Your task to perform on an android device: Open maps Image 0: 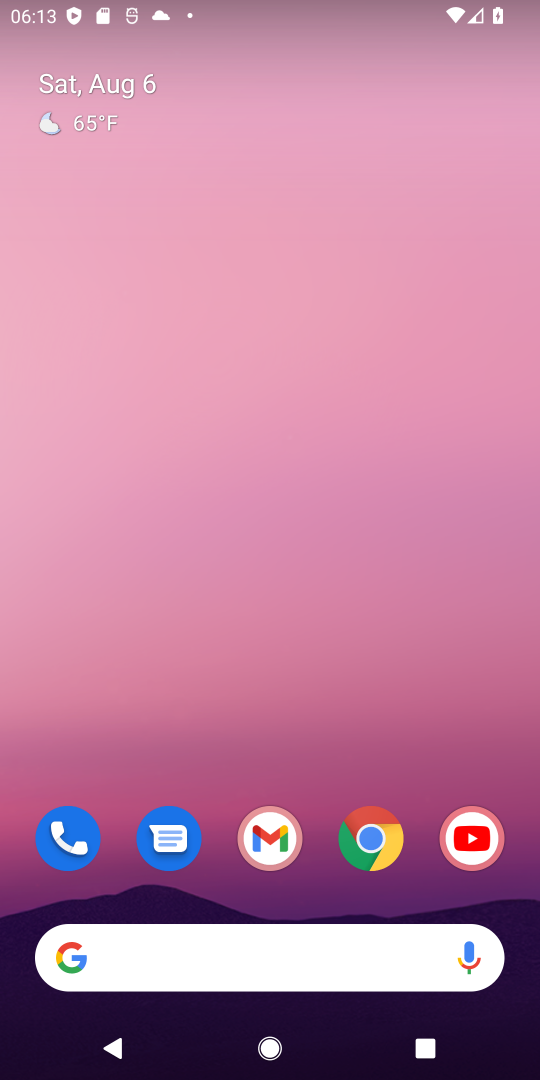
Step 0: drag from (326, 743) to (299, 113)
Your task to perform on an android device: Open maps Image 1: 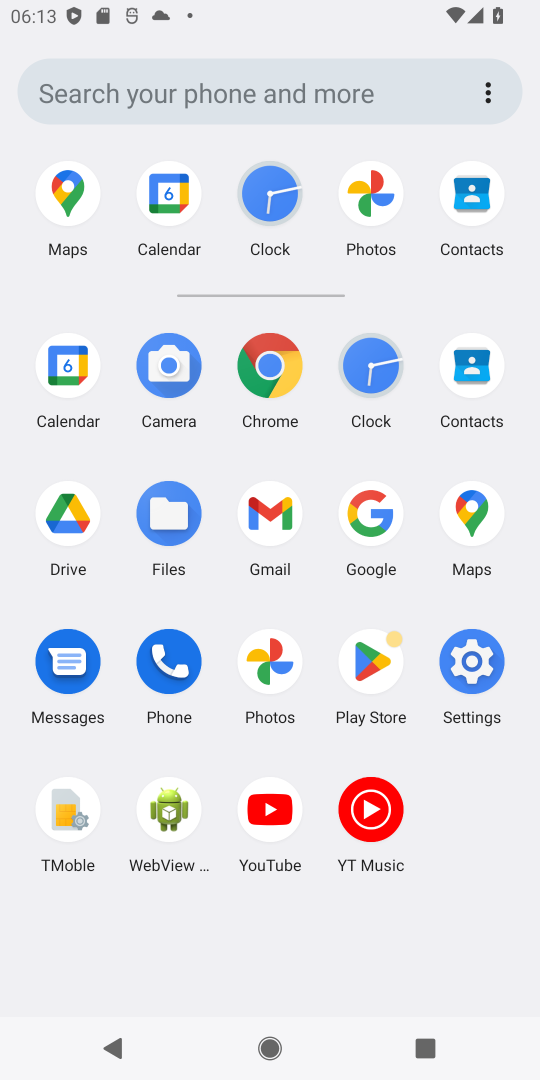
Step 1: click (475, 533)
Your task to perform on an android device: Open maps Image 2: 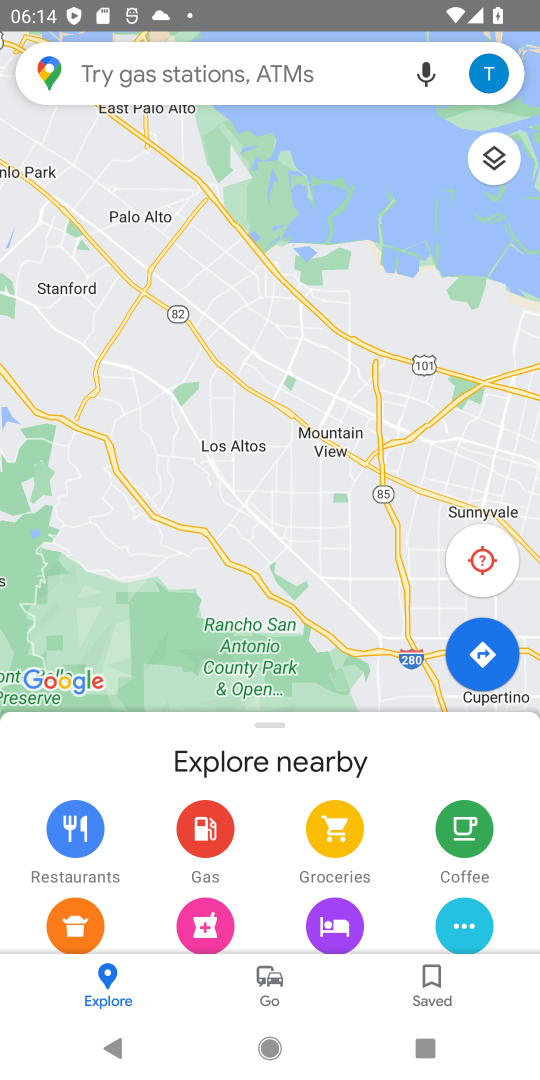
Step 2: task complete